Your task to perform on an android device: Find a nice sofa on eBay Image 0: 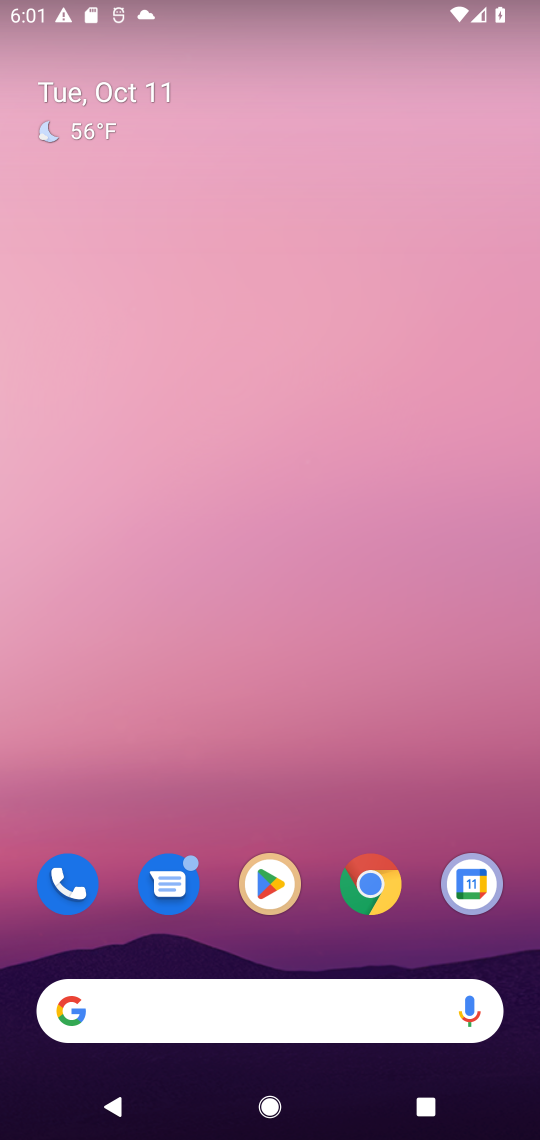
Step 0: drag from (338, 973) to (348, 157)
Your task to perform on an android device: Find a nice sofa on eBay Image 1: 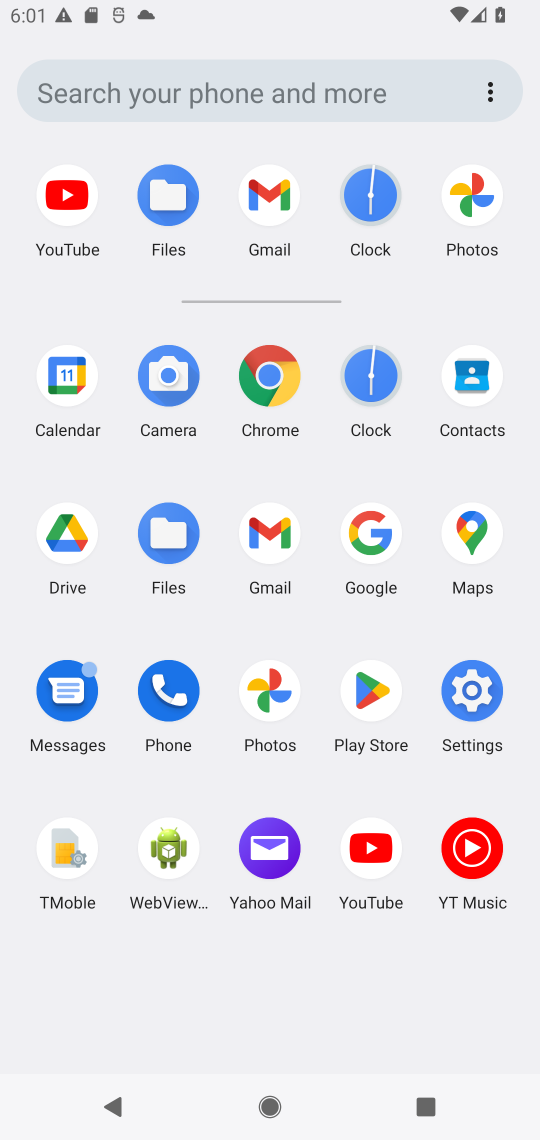
Step 1: click (376, 536)
Your task to perform on an android device: Find a nice sofa on eBay Image 2: 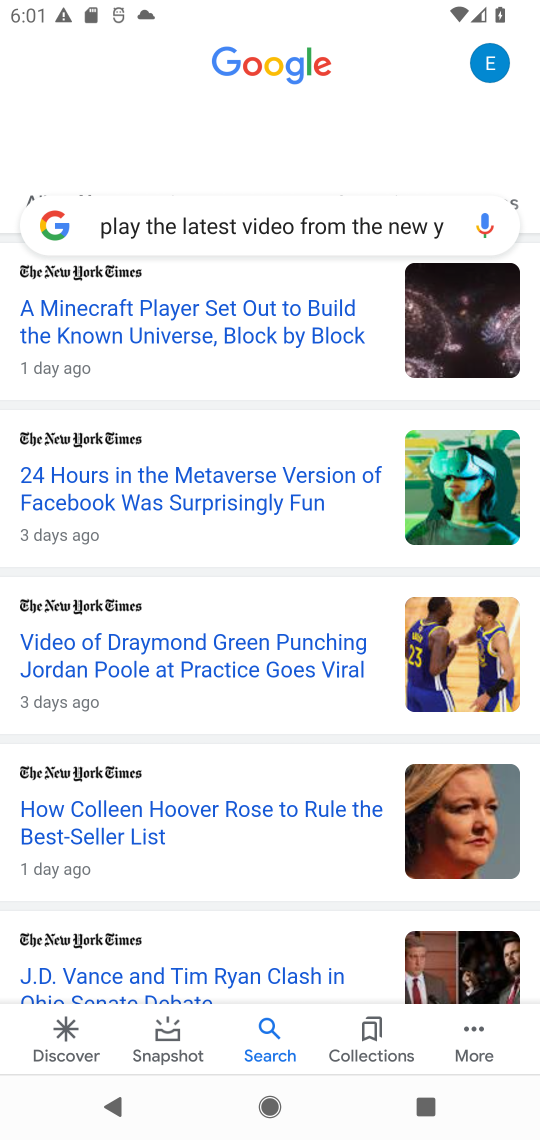
Step 2: click (352, 226)
Your task to perform on an android device: Find a nice sofa on eBay Image 3: 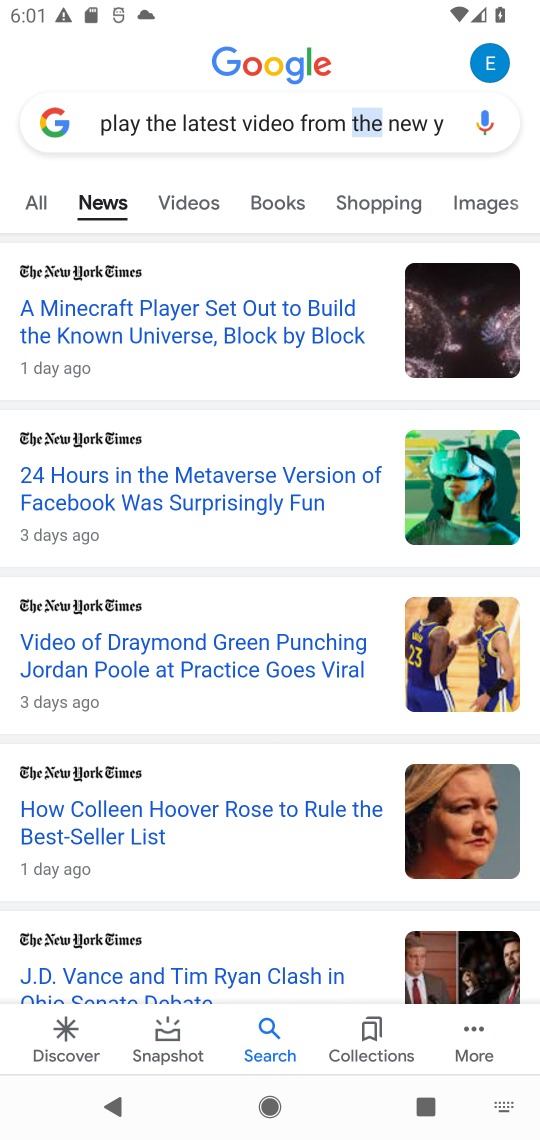
Step 3: click (302, 216)
Your task to perform on an android device: Find a nice sofa on eBay Image 4: 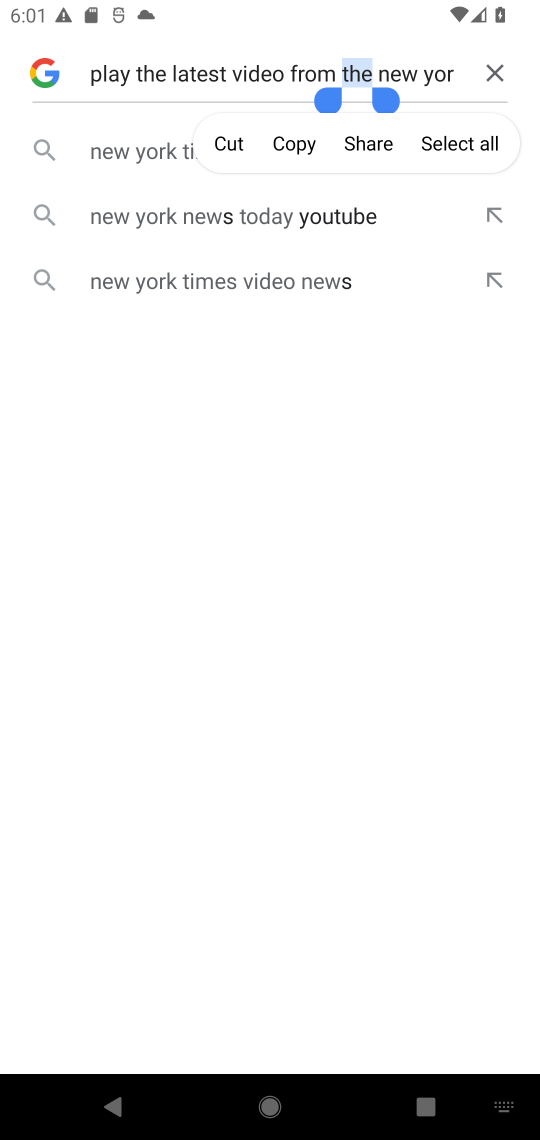
Step 4: click (479, 68)
Your task to perform on an android device: Find a nice sofa on eBay Image 5: 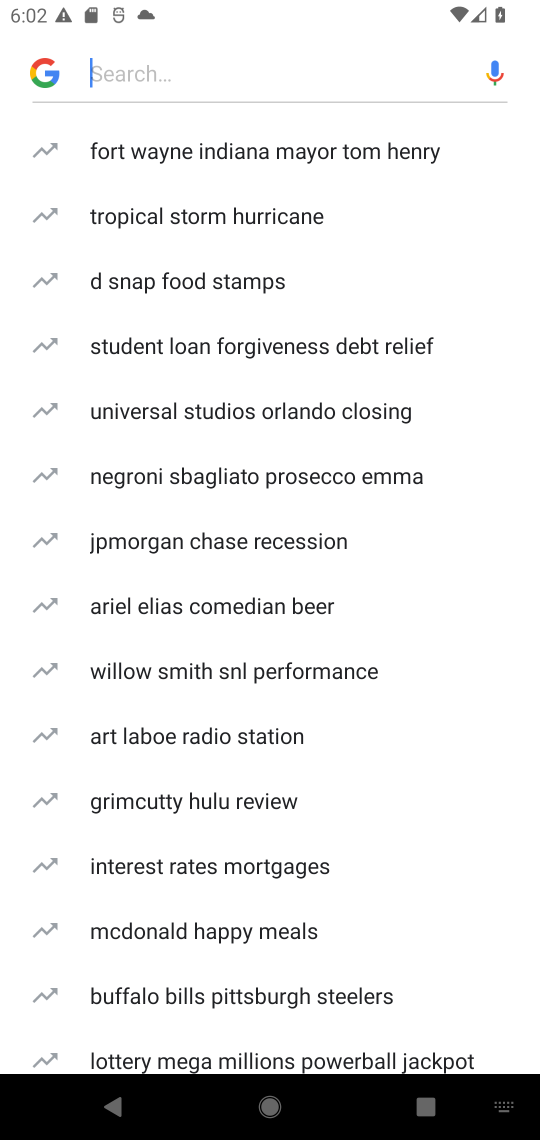
Step 5: type "Find a nice sofa on eBay"
Your task to perform on an android device: Find a nice sofa on eBay Image 6: 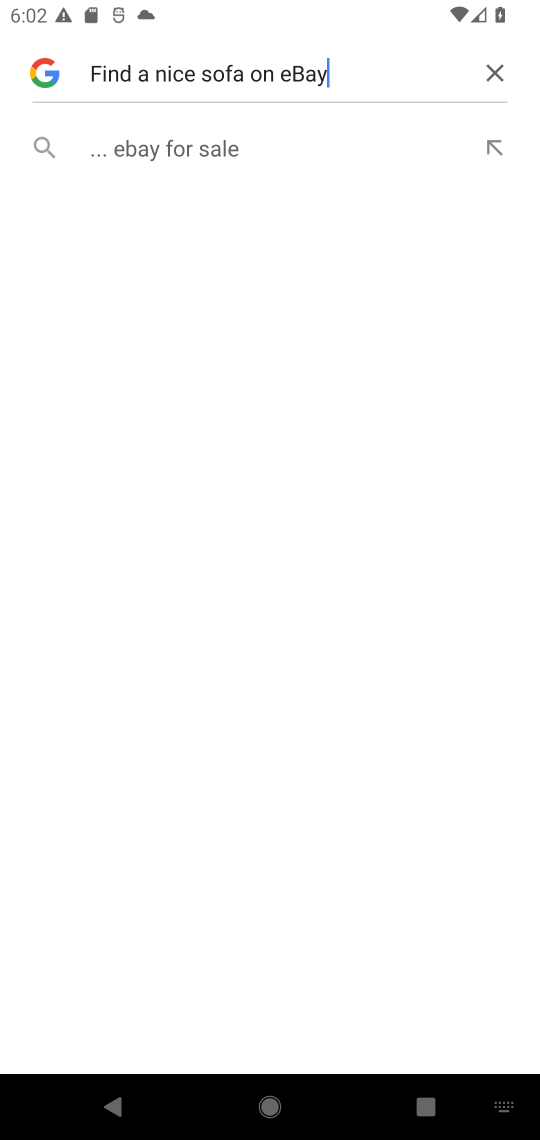
Step 6: click (173, 149)
Your task to perform on an android device: Find a nice sofa on eBay Image 7: 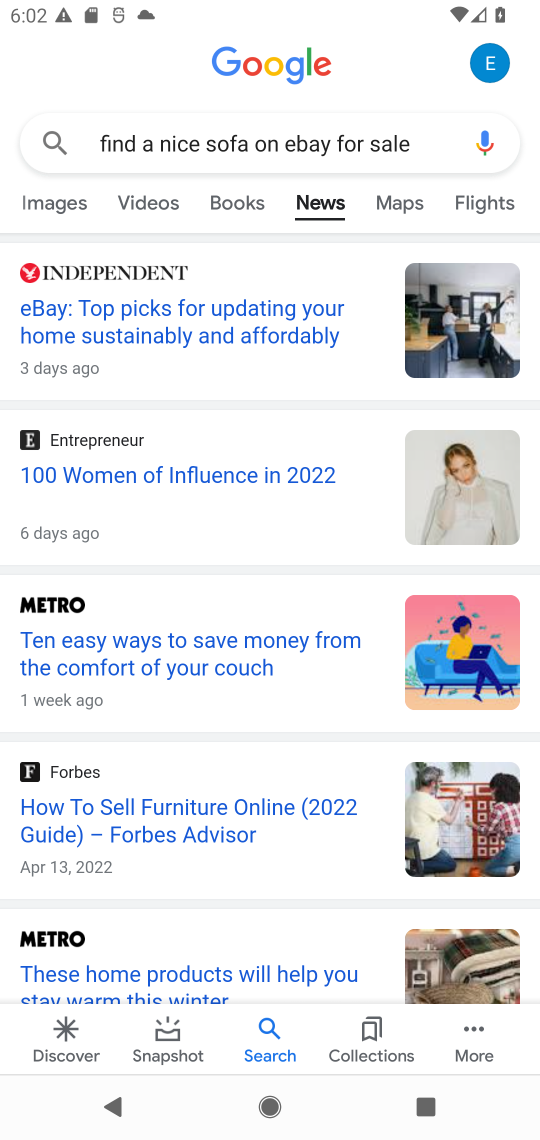
Step 7: drag from (50, 207) to (360, 252)
Your task to perform on an android device: Find a nice sofa on eBay Image 8: 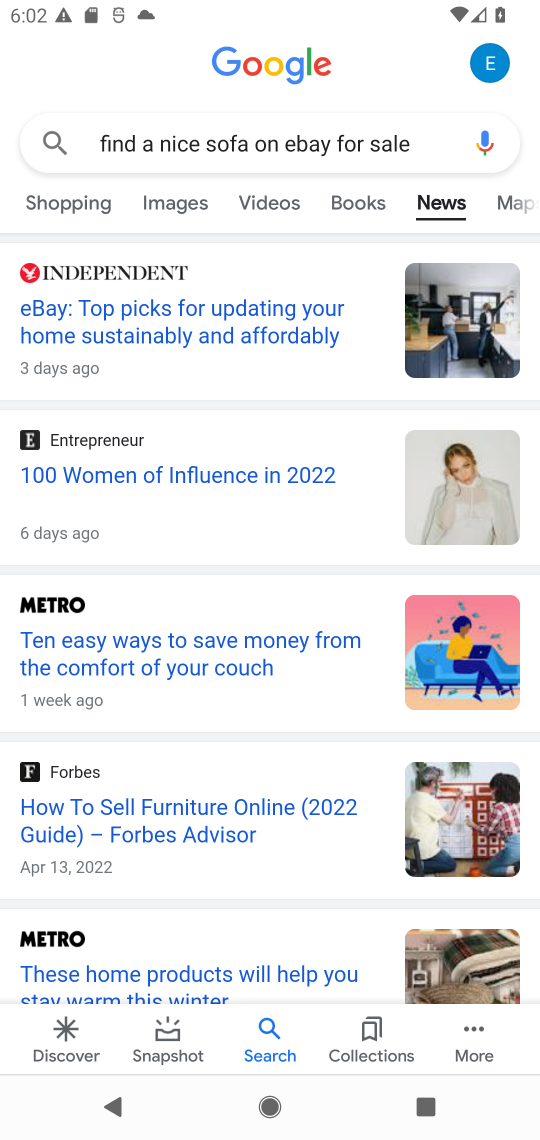
Step 8: drag from (59, 206) to (425, 230)
Your task to perform on an android device: Find a nice sofa on eBay Image 9: 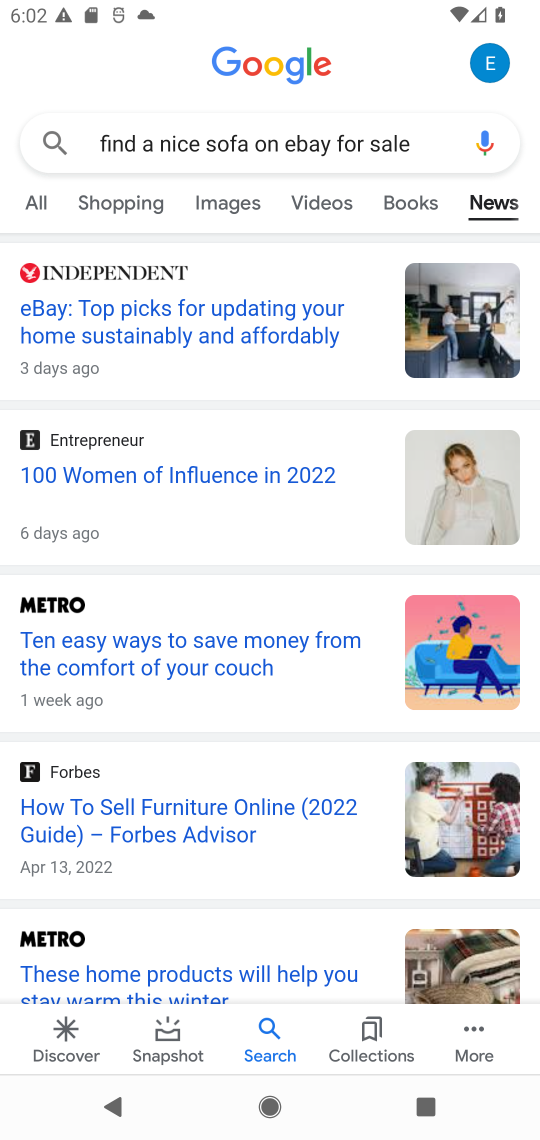
Step 9: click (39, 194)
Your task to perform on an android device: Find a nice sofa on eBay Image 10: 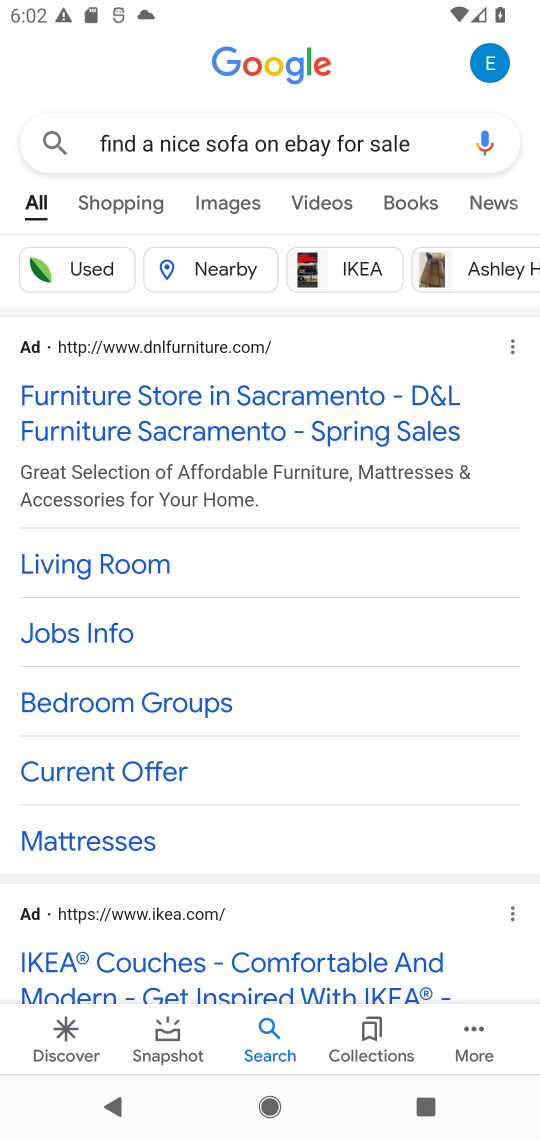
Step 10: drag from (206, 881) to (239, 425)
Your task to perform on an android device: Find a nice sofa on eBay Image 11: 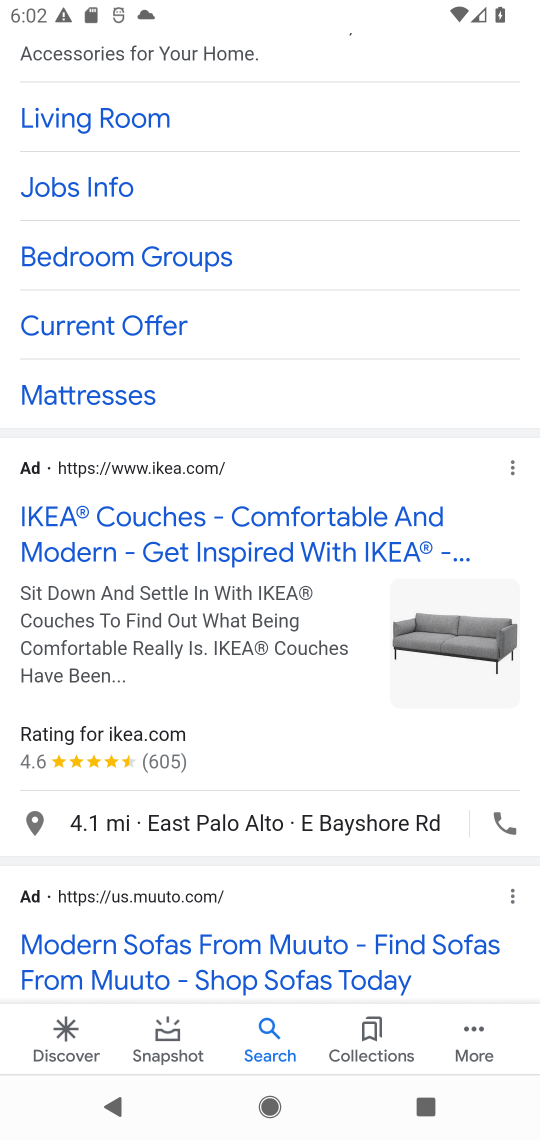
Step 11: click (156, 543)
Your task to perform on an android device: Find a nice sofa on eBay Image 12: 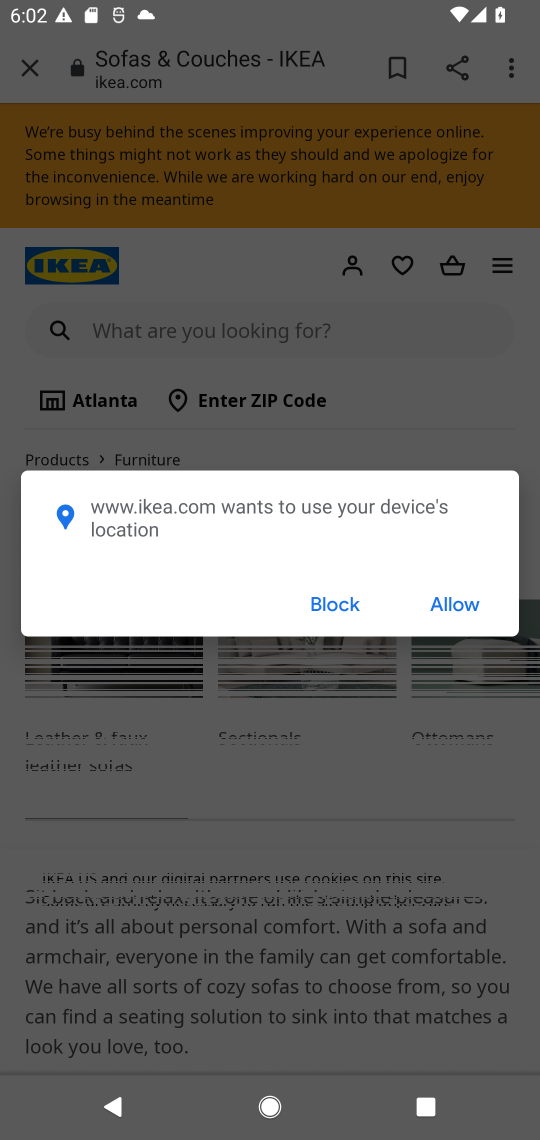
Step 12: click (318, 607)
Your task to perform on an android device: Find a nice sofa on eBay Image 13: 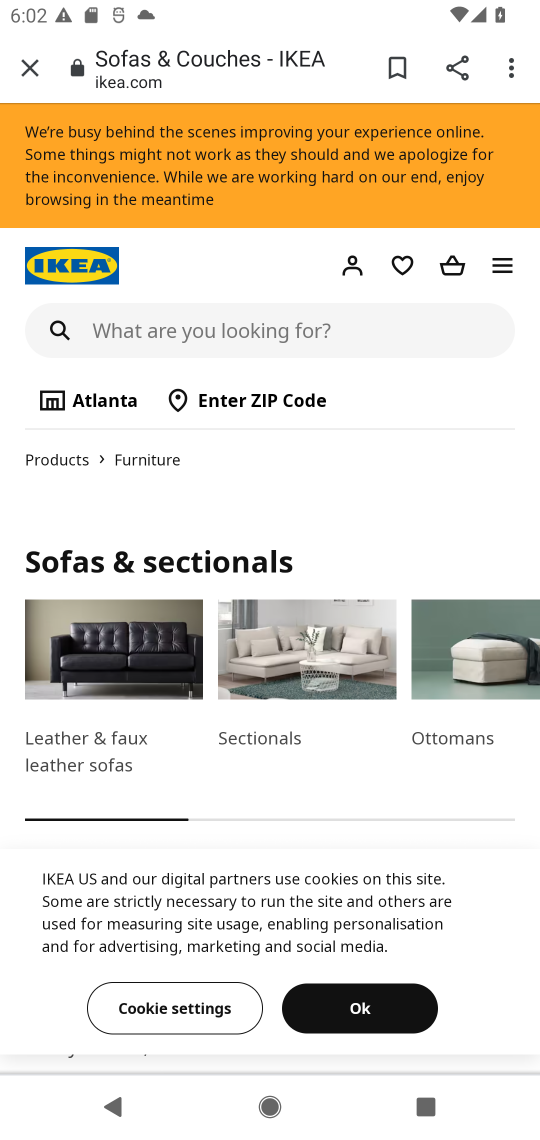
Step 13: task complete